Your task to perform on an android device: See recent photos Image 0: 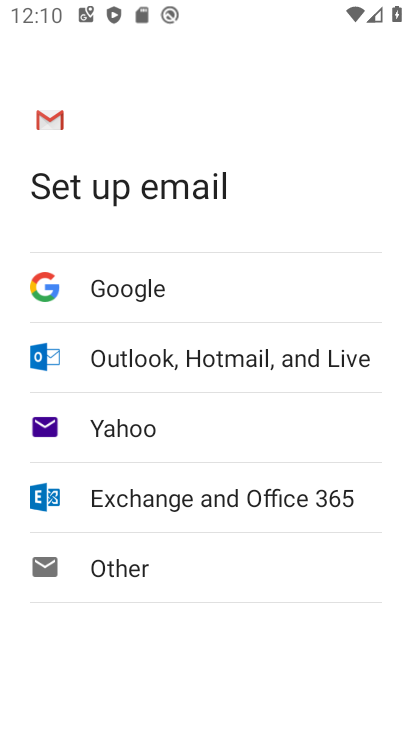
Step 0: press back button
Your task to perform on an android device: See recent photos Image 1: 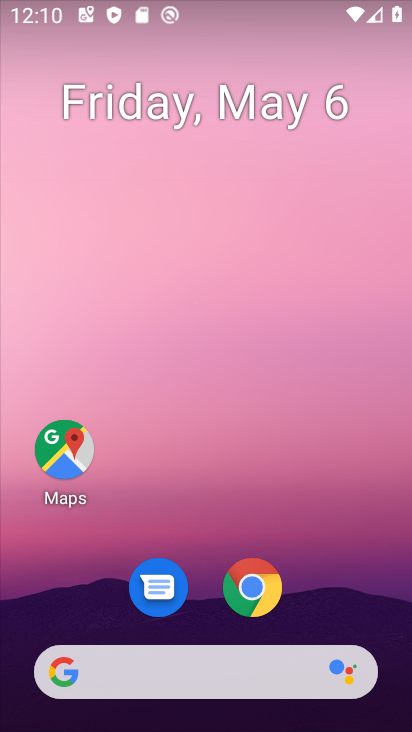
Step 1: drag from (195, 597) to (251, 162)
Your task to perform on an android device: See recent photos Image 2: 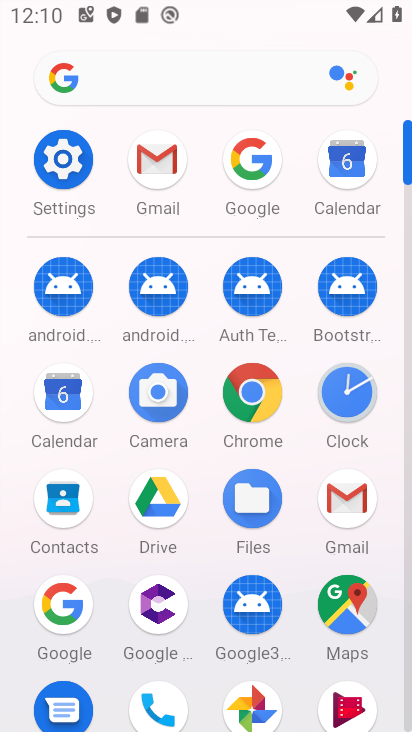
Step 2: drag from (220, 676) to (260, 311)
Your task to perform on an android device: See recent photos Image 3: 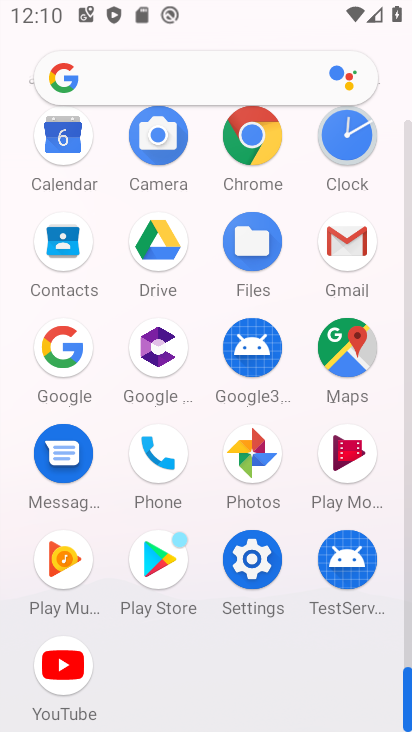
Step 3: click (261, 441)
Your task to perform on an android device: See recent photos Image 4: 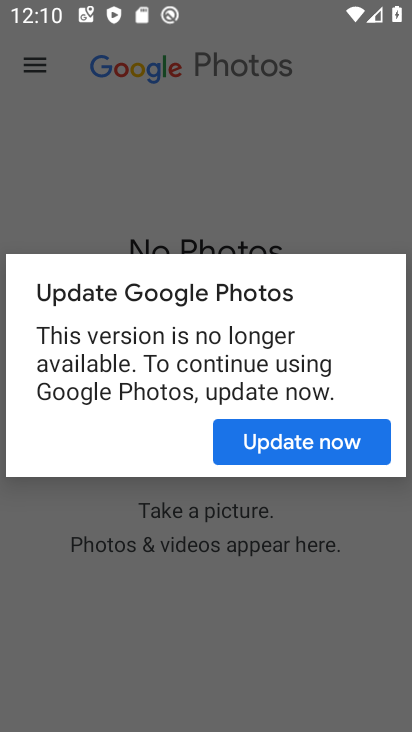
Step 4: click (158, 602)
Your task to perform on an android device: See recent photos Image 5: 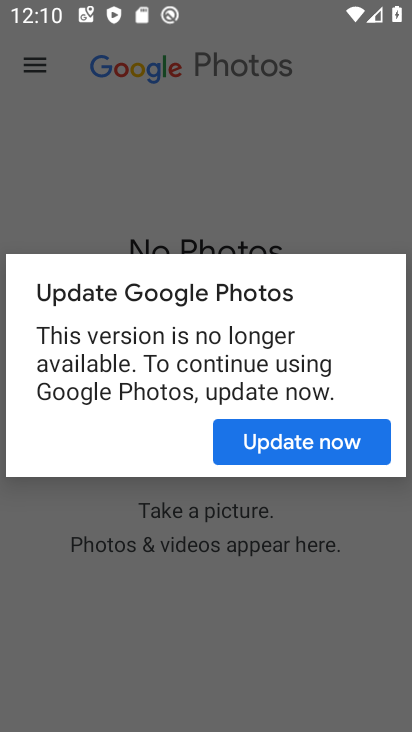
Step 5: click (271, 447)
Your task to perform on an android device: See recent photos Image 6: 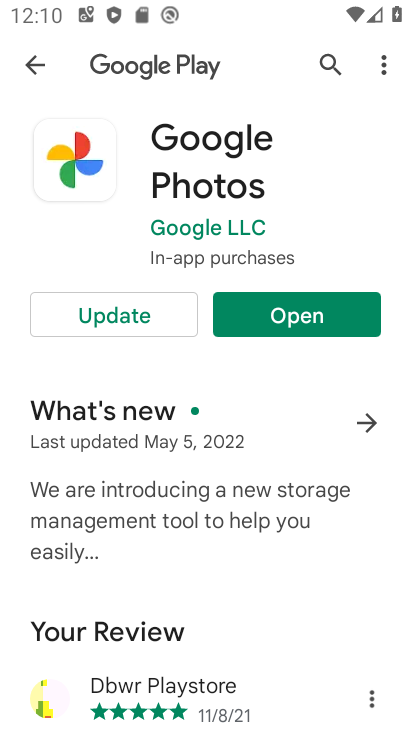
Step 6: click (283, 317)
Your task to perform on an android device: See recent photos Image 7: 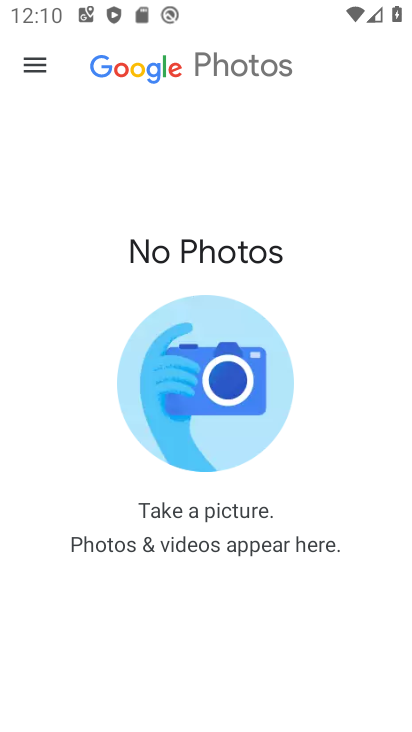
Step 7: task complete